Your task to perform on an android device: turn on airplane mode Image 0: 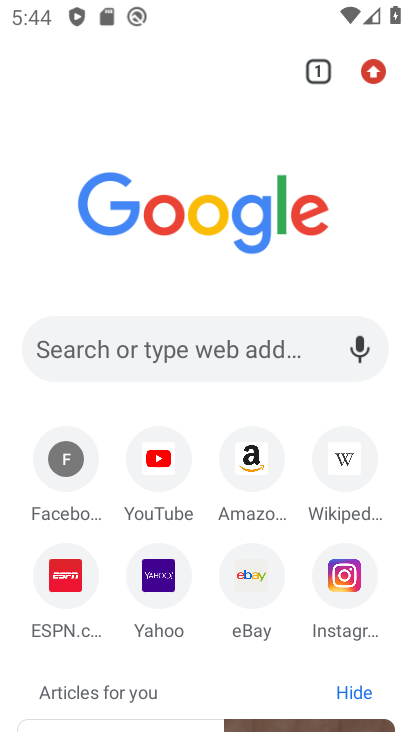
Step 0: press home button
Your task to perform on an android device: turn on airplane mode Image 1: 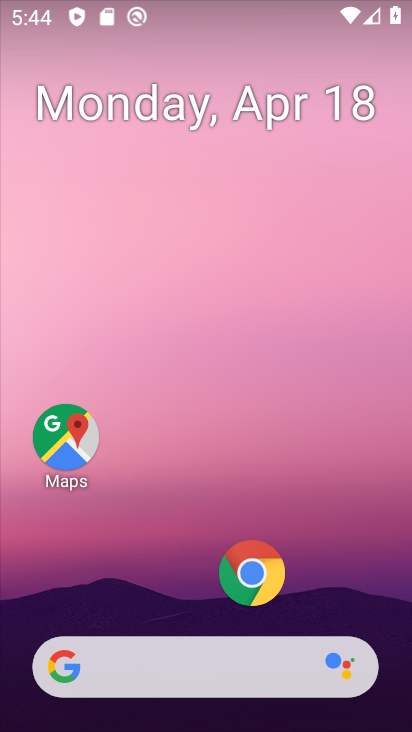
Step 1: drag from (171, 587) to (239, 34)
Your task to perform on an android device: turn on airplane mode Image 2: 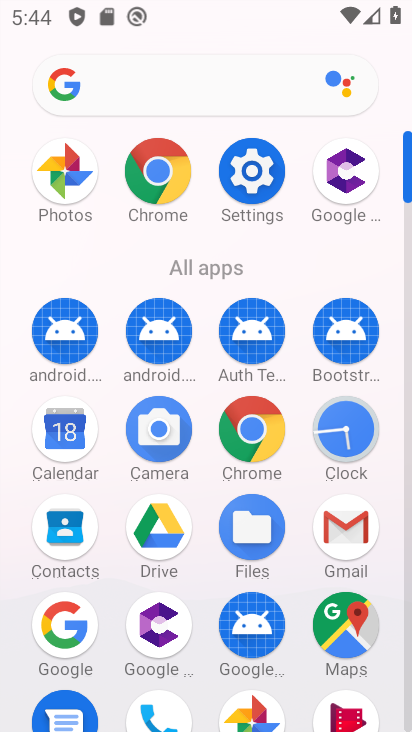
Step 2: click (249, 179)
Your task to perform on an android device: turn on airplane mode Image 3: 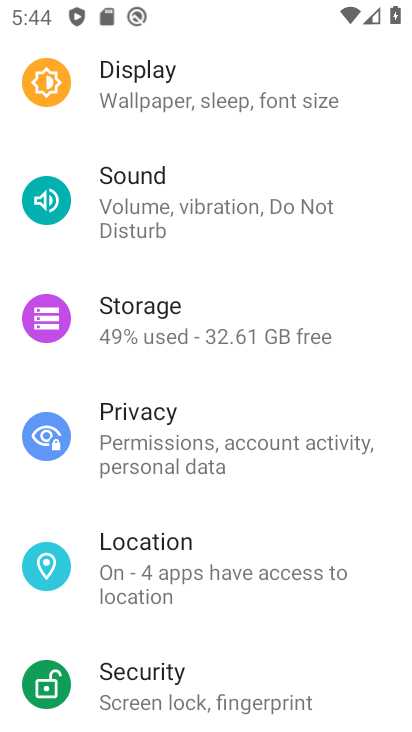
Step 3: drag from (256, 168) to (252, 529)
Your task to perform on an android device: turn on airplane mode Image 4: 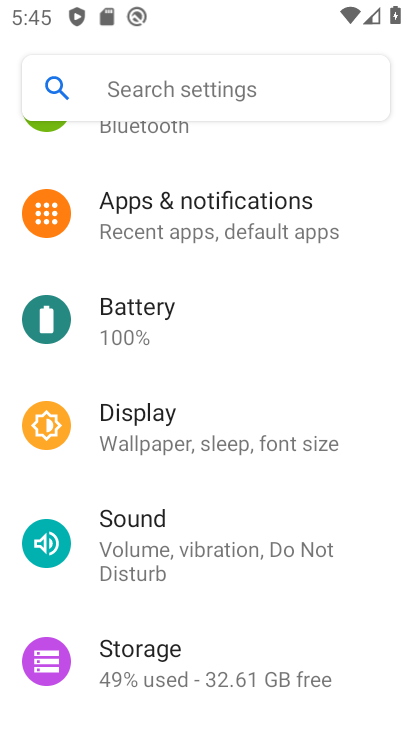
Step 4: drag from (224, 167) to (250, 672)
Your task to perform on an android device: turn on airplane mode Image 5: 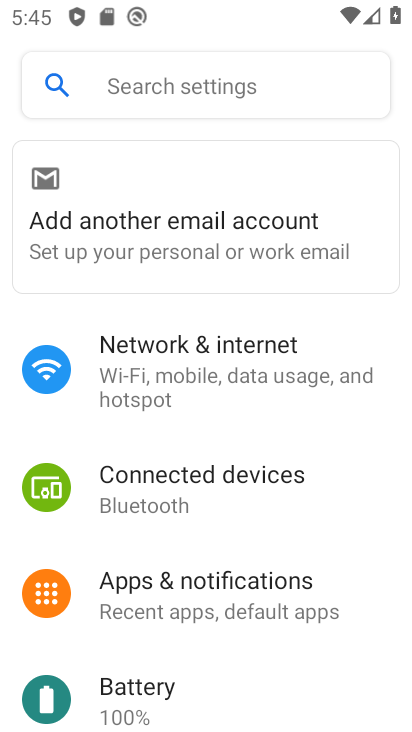
Step 5: click (225, 354)
Your task to perform on an android device: turn on airplane mode Image 6: 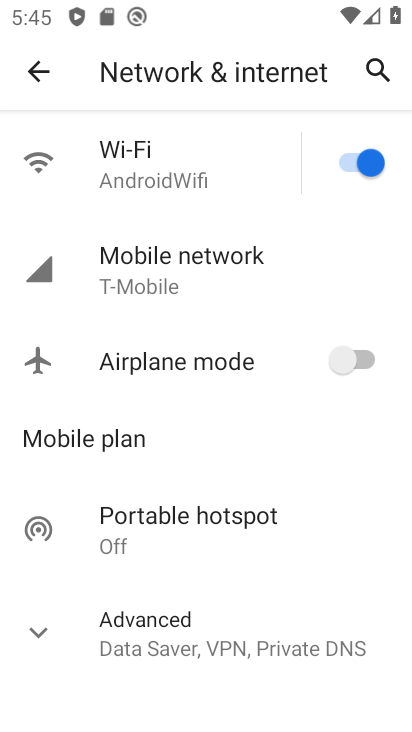
Step 6: click (366, 357)
Your task to perform on an android device: turn on airplane mode Image 7: 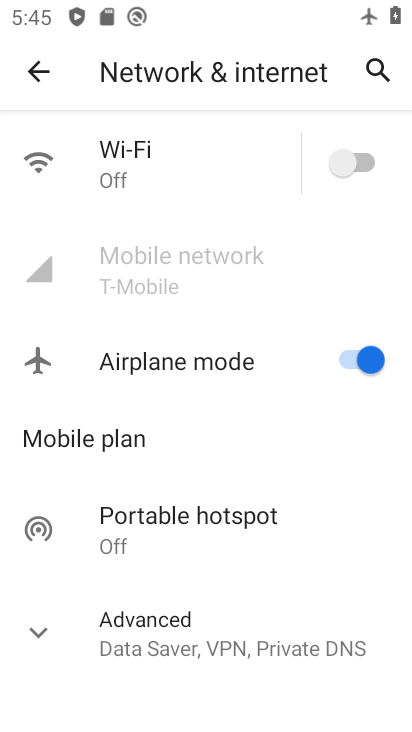
Step 7: task complete